Your task to perform on an android device: What's the weather today? Image 0: 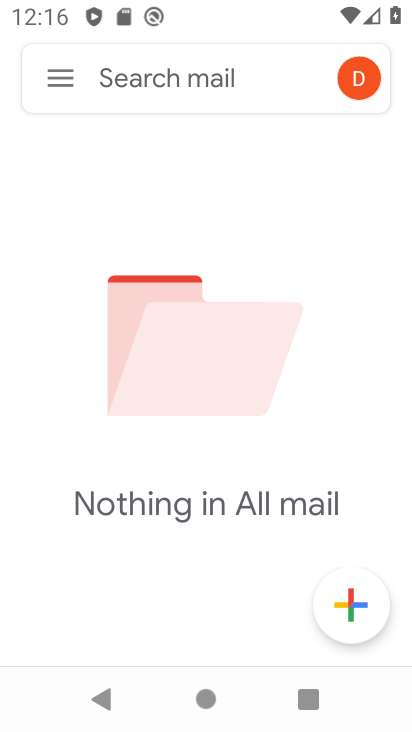
Step 0: press home button
Your task to perform on an android device: What's the weather today? Image 1: 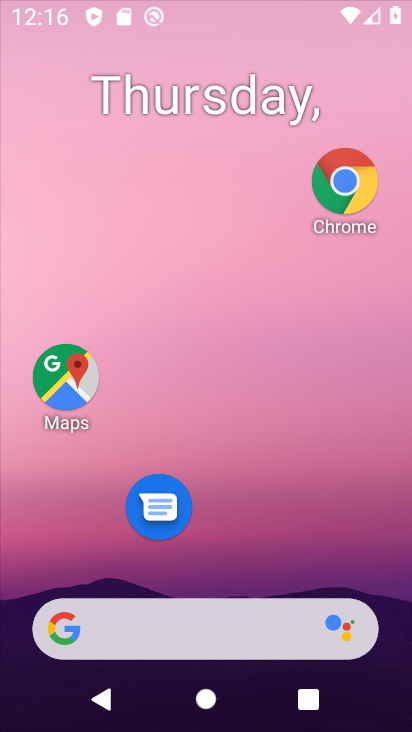
Step 1: drag from (204, 594) to (309, 132)
Your task to perform on an android device: What's the weather today? Image 2: 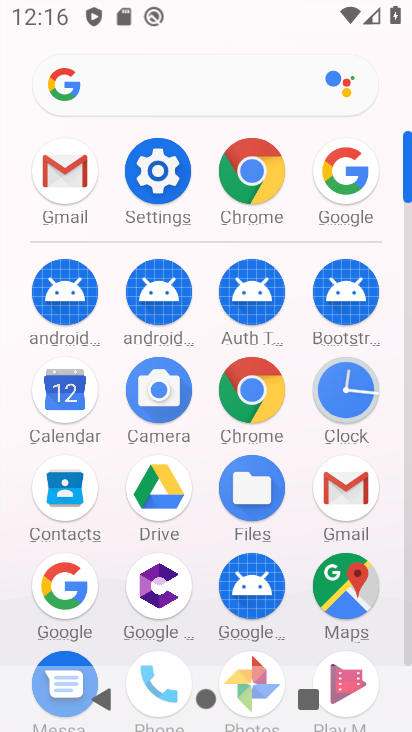
Step 2: click (69, 579)
Your task to perform on an android device: What's the weather today? Image 3: 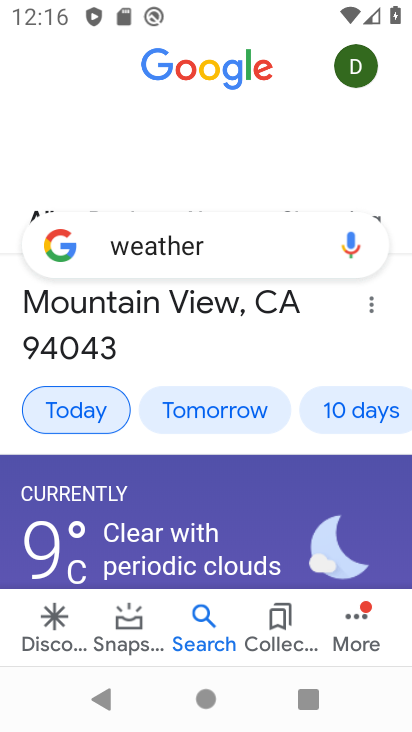
Step 3: task complete